Your task to perform on an android device: Open internet settings Image 0: 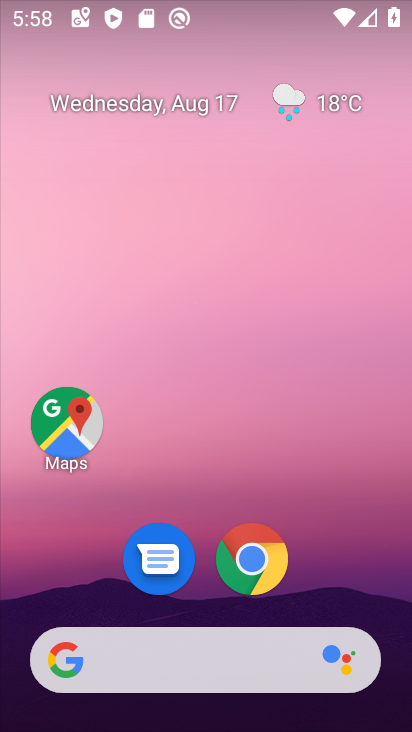
Step 0: drag from (145, 686) to (196, 63)
Your task to perform on an android device: Open internet settings Image 1: 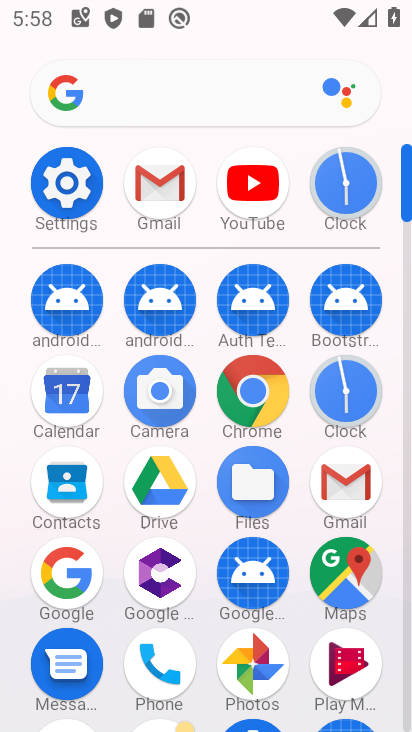
Step 1: click (58, 185)
Your task to perform on an android device: Open internet settings Image 2: 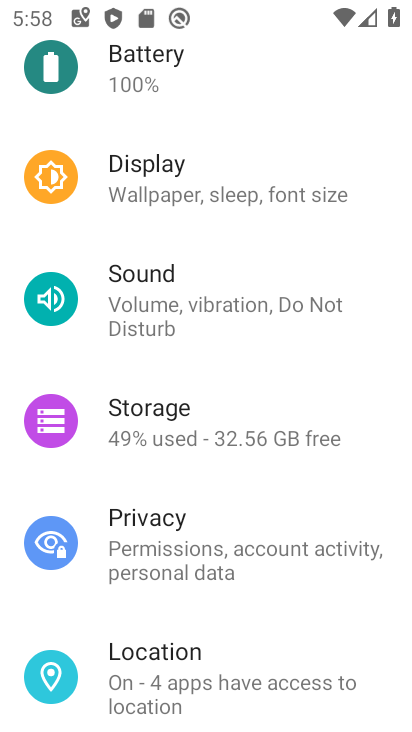
Step 2: drag from (147, 718) to (151, 678)
Your task to perform on an android device: Open internet settings Image 3: 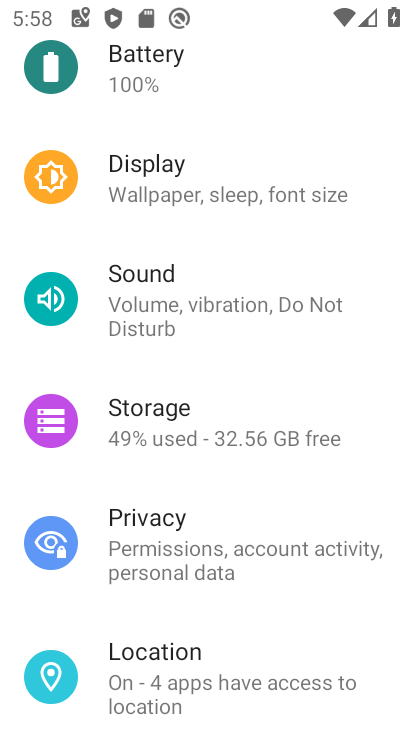
Step 3: drag from (239, 231) to (209, 722)
Your task to perform on an android device: Open internet settings Image 4: 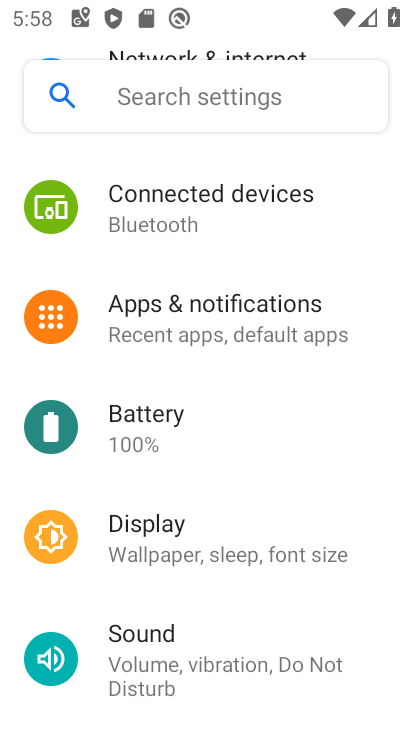
Step 4: drag from (194, 263) to (155, 726)
Your task to perform on an android device: Open internet settings Image 5: 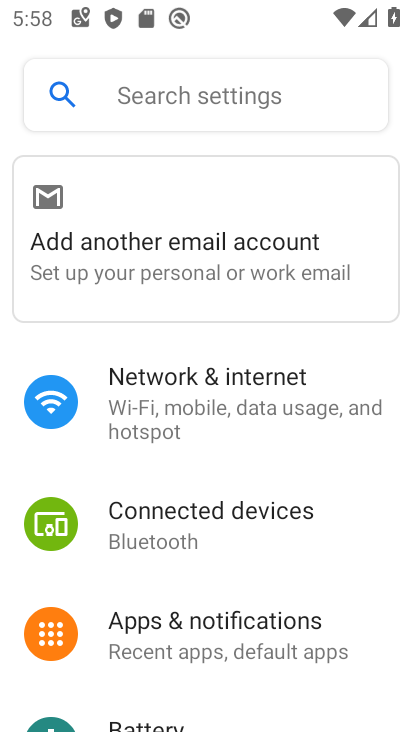
Step 5: click (194, 408)
Your task to perform on an android device: Open internet settings Image 6: 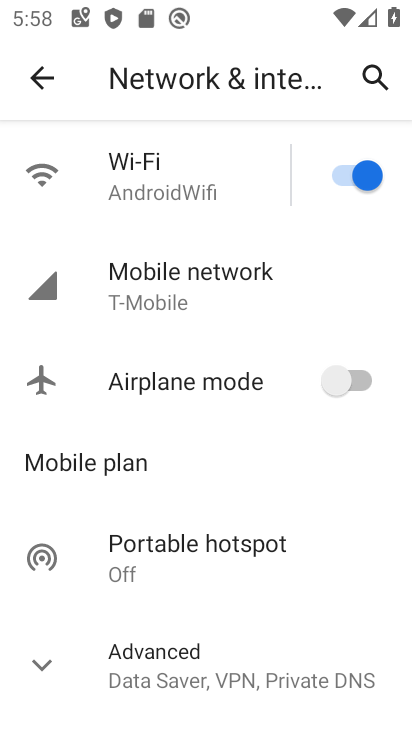
Step 6: task complete